Your task to perform on an android device: turn pop-ups off in chrome Image 0: 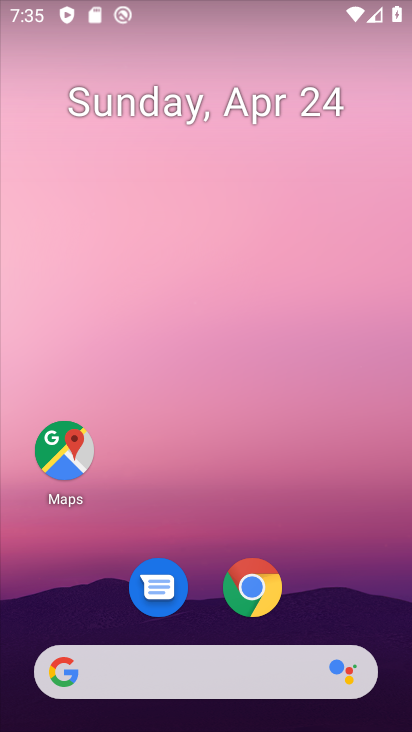
Step 0: drag from (366, 575) to (383, 137)
Your task to perform on an android device: turn pop-ups off in chrome Image 1: 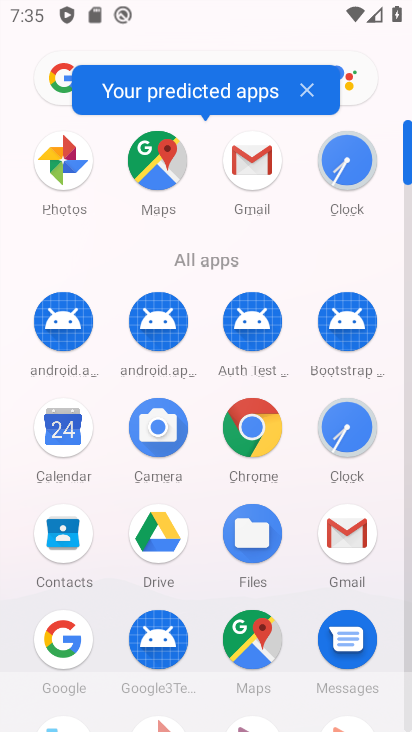
Step 1: click (267, 437)
Your task to perform on an android device: turn pop-ups off in chrome Image 2: 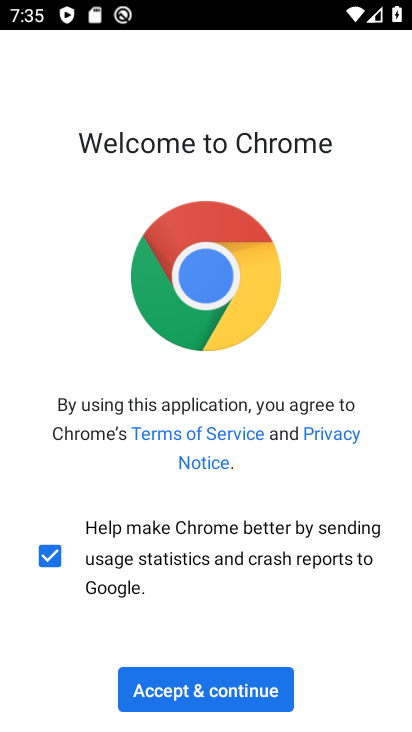
Step 2: click (208, 710)
Your task to perform on an android device: turn pop-ups off in chrome Image 3: 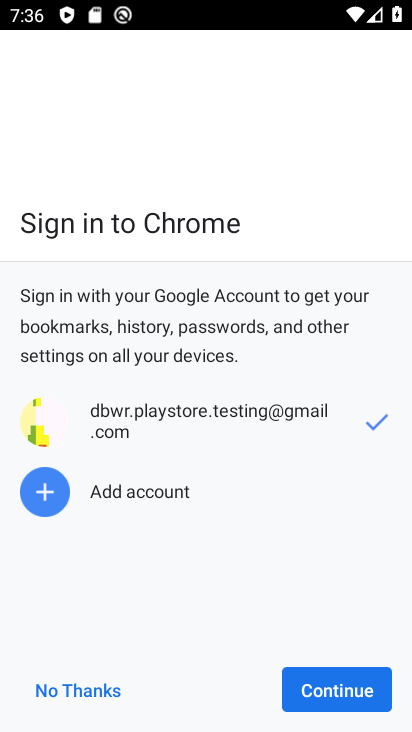
Step 3: click (374, 698)
Your task to perform on an android device: turn pop-ups off in chrome Image 4: 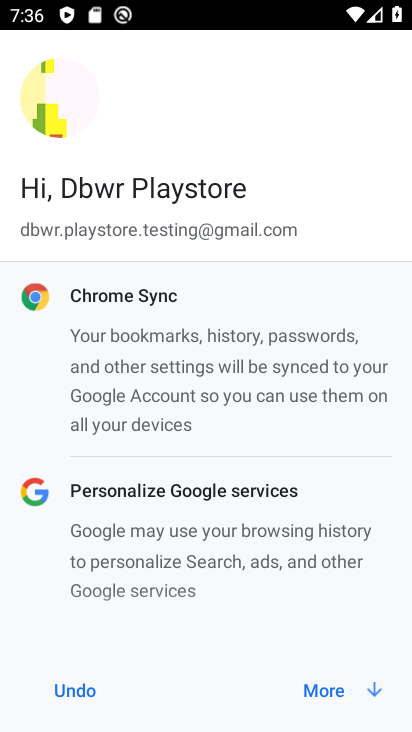
Step 4: click (375, 699)
Your task to perform on an android device: turn pop-ups off in chrome Image 5: 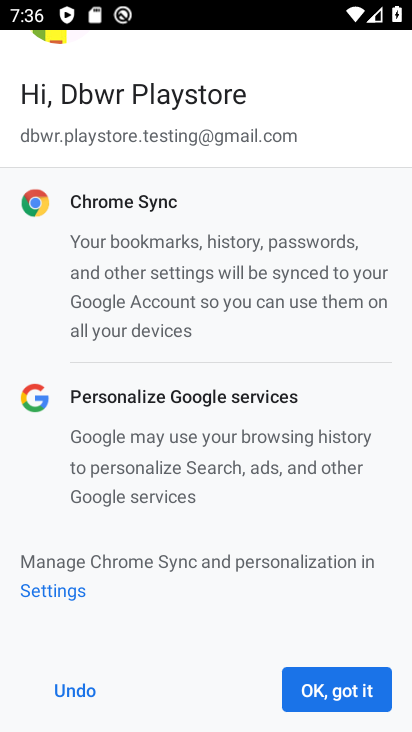
Step 5: click (375, 699)
Your task to perform on an android device: turn pop-ups off in chrome Image 6: 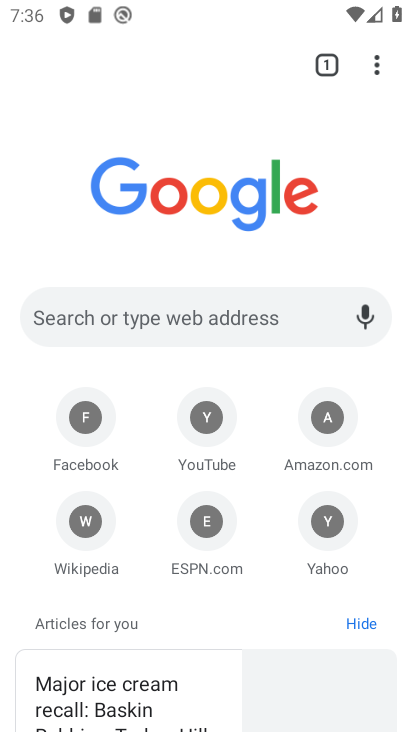
Step 6: drag from (378, 75) to (199, 552)
Your task to perform on an android device: turn pop-ups off in chrome Image 7: 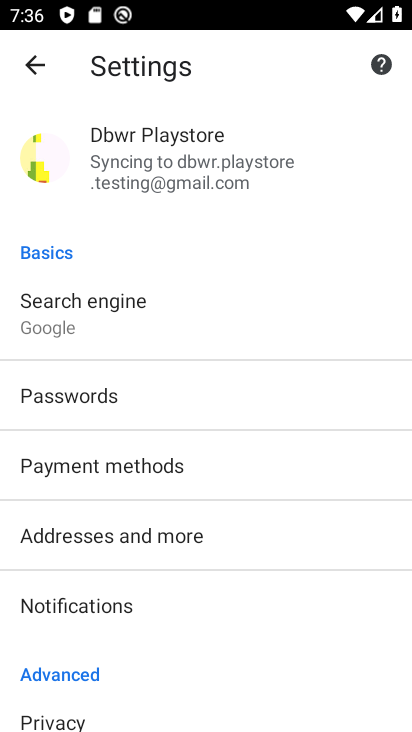
Step 7: drag from (260, 591) to (262, 207)
Your task to perform on an android device: turn pop-ups off in chrome Image 8: 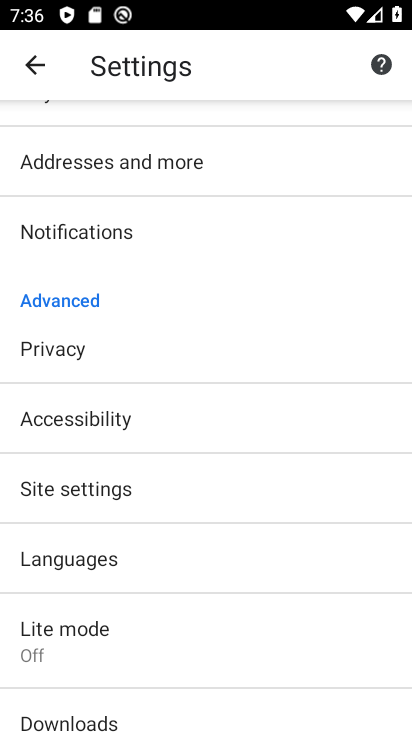
Step 8: drag from (259, 607) to (295, 443)
Your task to perform on an android device: turn pop-ups off in chrome Image 9: 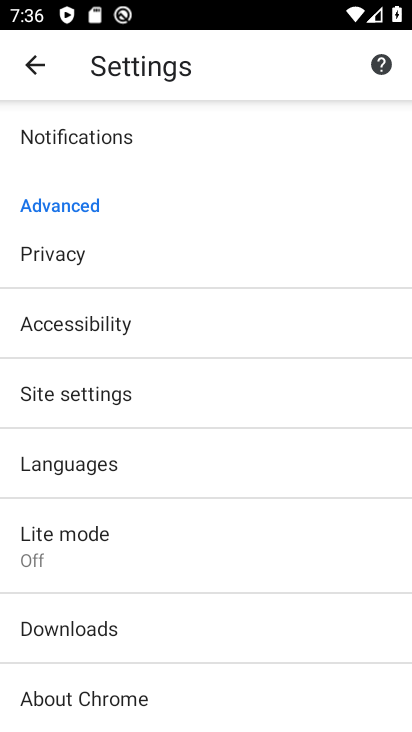
Step 9: click (180, 394)
Your task to perform on an android device: turn pop-ups off in chrome Image 10: 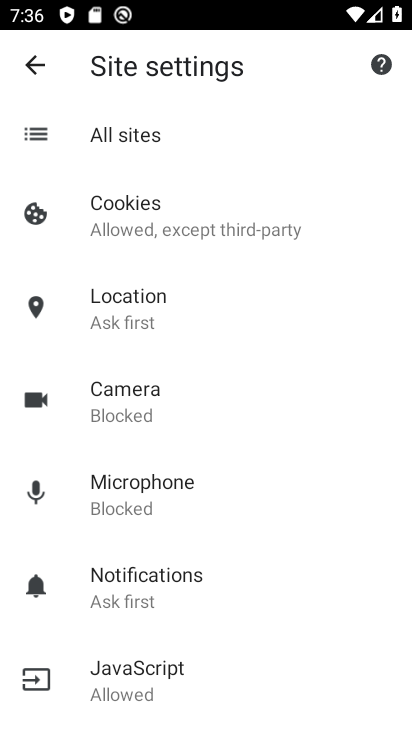
Step 10: drag from (253, 529) to (292, 290)
Your task to perform on an android device: turn pop-ups off in chrome Image 11: 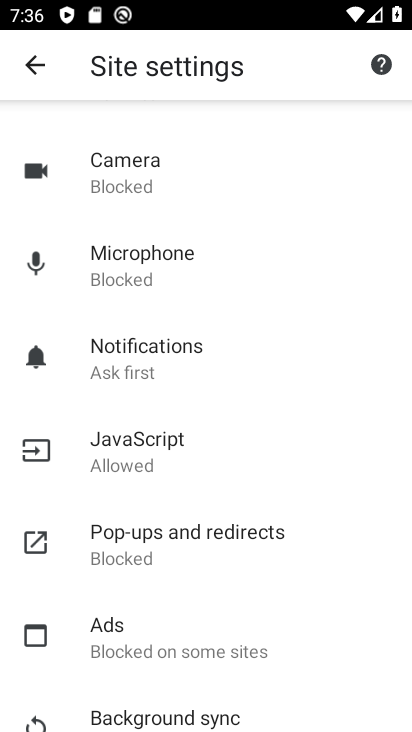
Step 11: click (210, 540)
Your task to perform on an android device: turn pop-ups off in chrome Image 12: 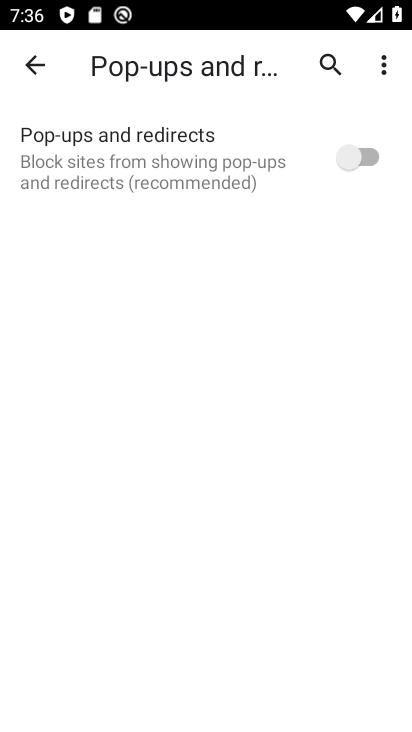
Step 12: task complete